Your task to perform on an android device: Go to CNN.com Image 0: 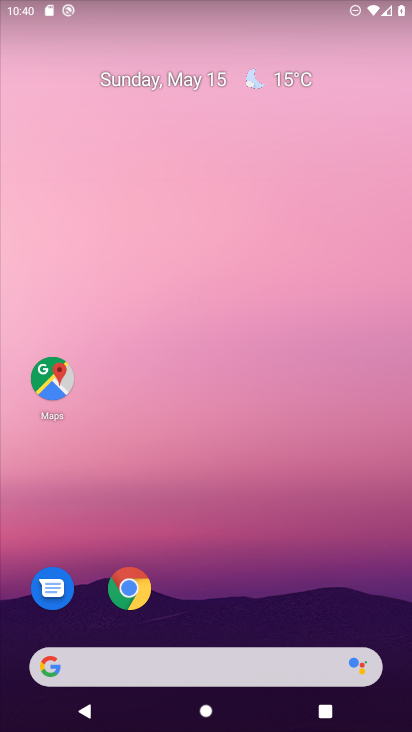
Step 0: drag from (268, 642) to (303, 277)
Your task to perform on an android device: Go to CNN.com Image 1: 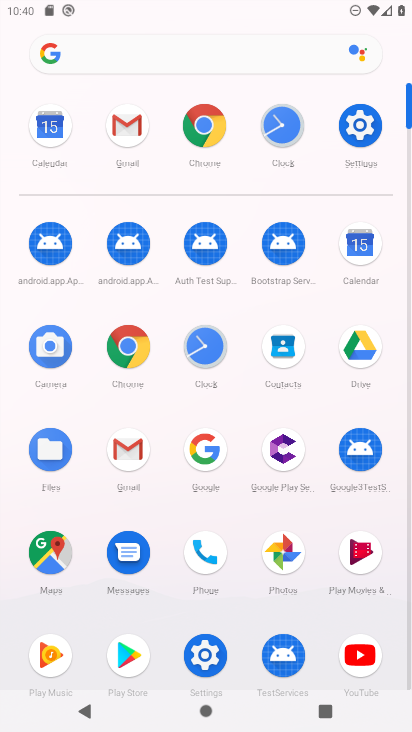
Step 1: click (132, 354)
Your task to perform on an android device: Go to CNN.com Image 2: 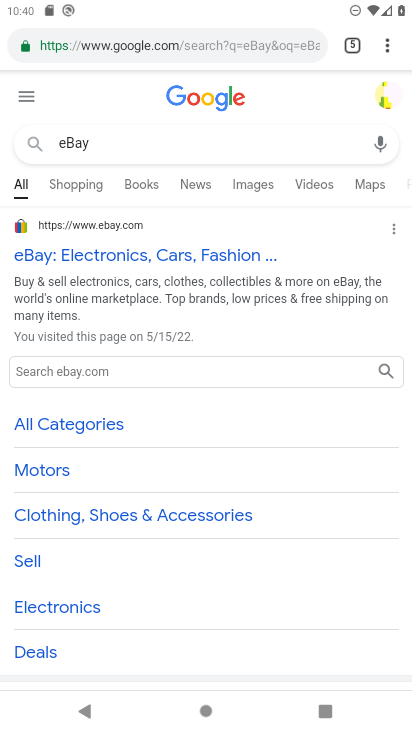
Step 2: click (171, 37)
Your task to perform on an android device: Go to CNN.com Image 3: 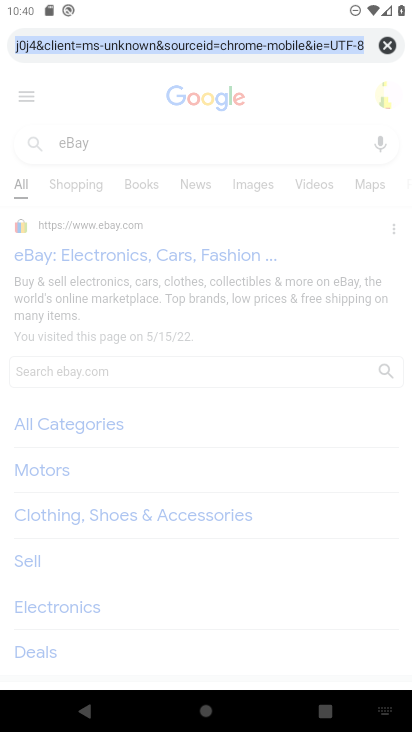
Step 3: type "CNN.com"
Your task to perform on an android device: Go to CNN.com Image 4: 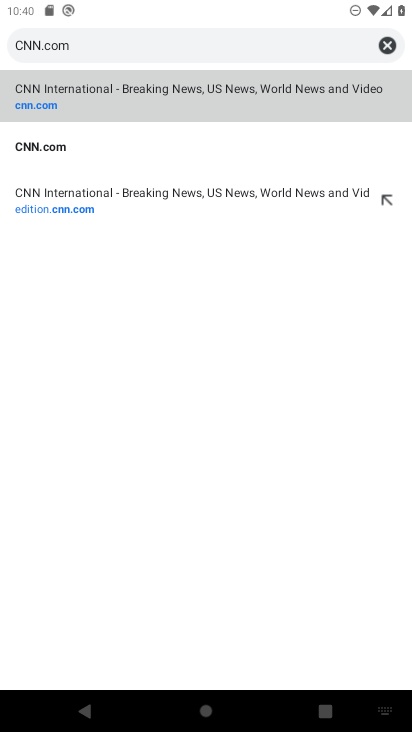
Step 4: click (47, 152)
Your task to perform on an android device: Go to CNN.com Image 5: 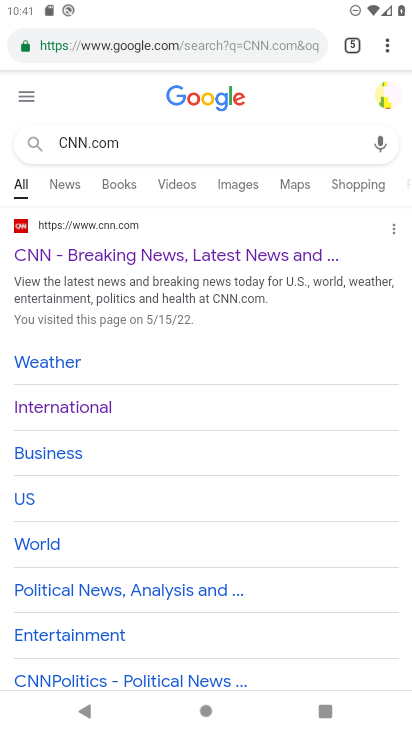
Step 5: task complete